Your task to perform on an android device: What's on my calendar tomorrow? Image 0: 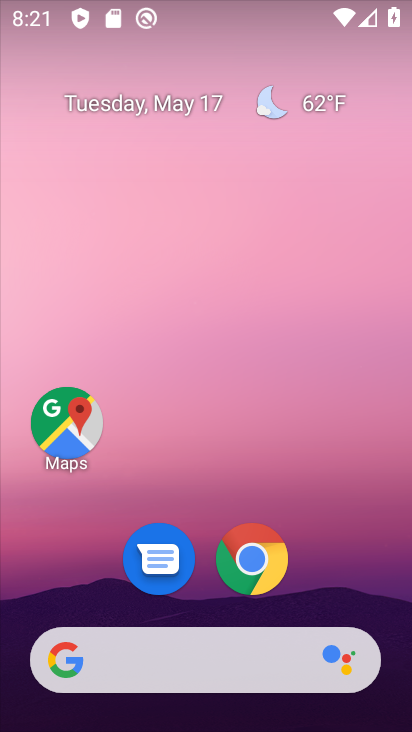
Step 0: drag from (189, 636) to (164, 221)
Your task to perform on an android device: What's on my calendar tomorrow? Image 1: 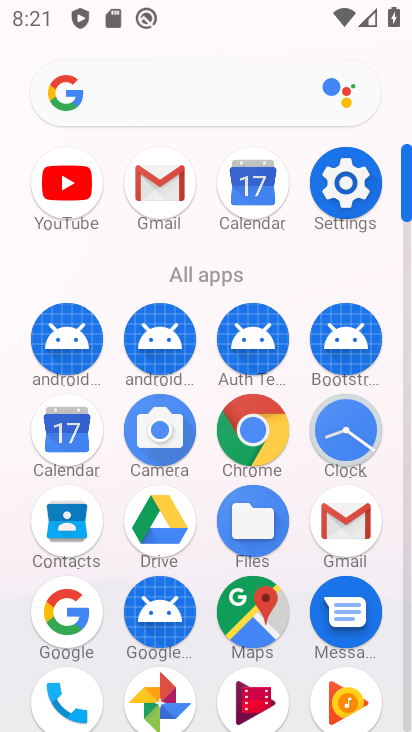
Step 1: click (75, 432)
Your task to perform on an android device: What's on my calendar tomorrow? Image 2: 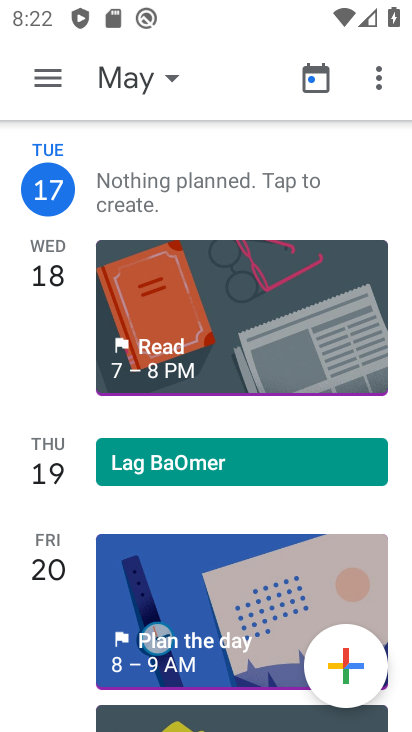
Step 2: click (49, 268)
Your task to perform on an android device: What's on my calendar tomorrow? Image 3: 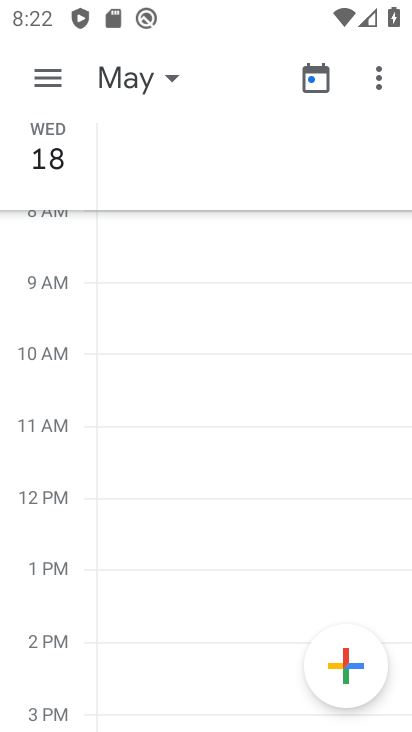
Step 3: task complete